Your task to perform on an android device: Open notification settings Image 0: 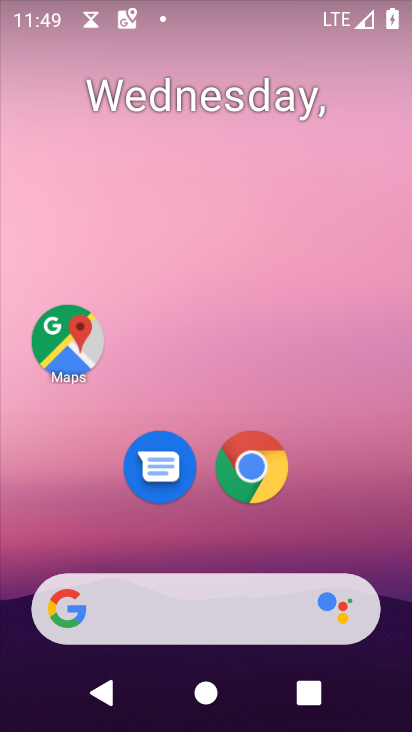
Step 0: drag from (152, 591) to (305, 98)
Your task to perform on an android device: Open notification settings Image 1: 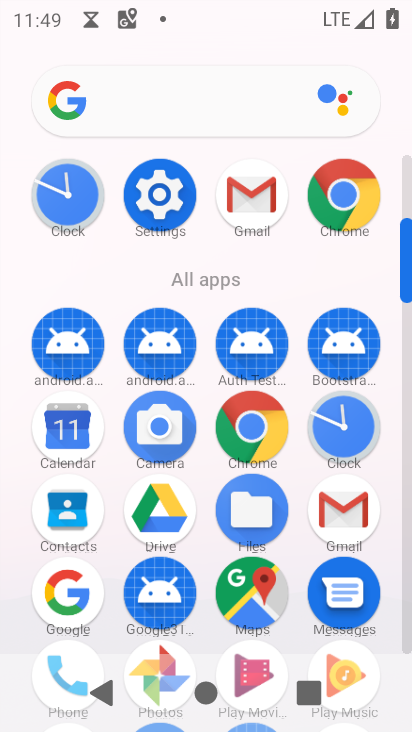
Step 1: click (175, 201)
Your task to perform on an android device: Open notification settings Image 2: 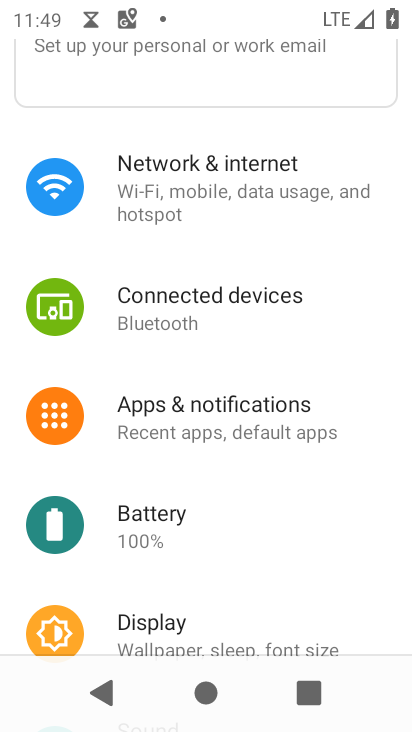
Step 2: click (269, 405)
Your task to perform on an android device: Open notification settings Image 3: 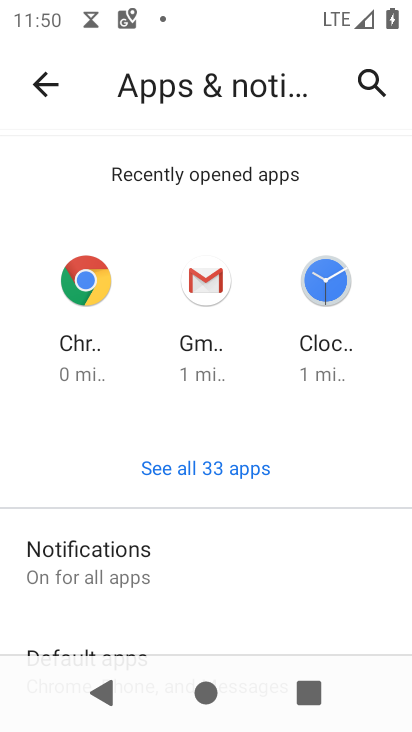
Step 3: click (125, 572)
Your task to perform on an android device: Open notification settings Image 4: 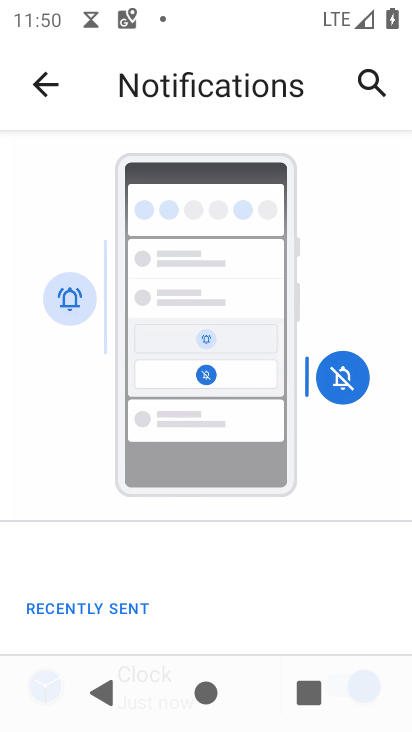
Step 4: task complete